Your task to perform on an android device: Open Google Chrome Image 0: 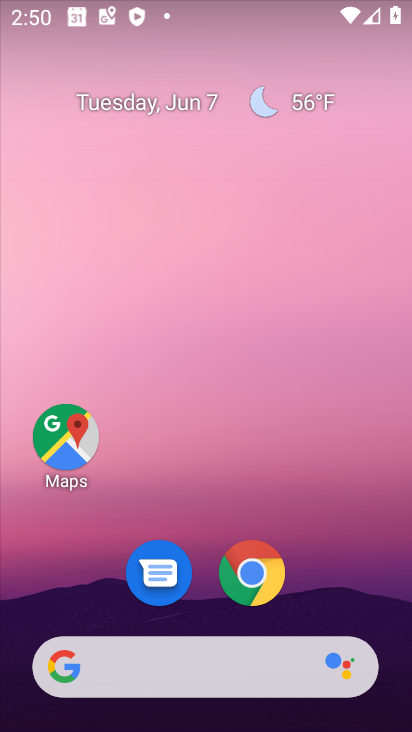
Step 0: press home button
Your task to perform on an android device: Open Google Chrome Image 1: 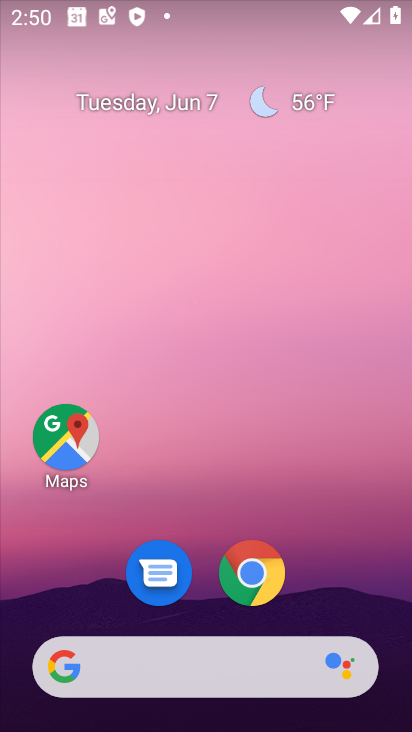
Step 1: click (261, 563)
Your task to perform on an android device: Open Google Chrome Image 2: 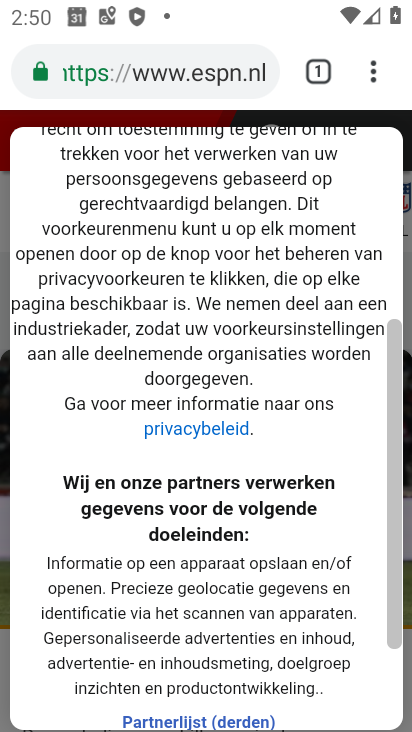
Step 2: task complete